Your task to perform on an android device: Clear the shopping cart on costco. Image 0: 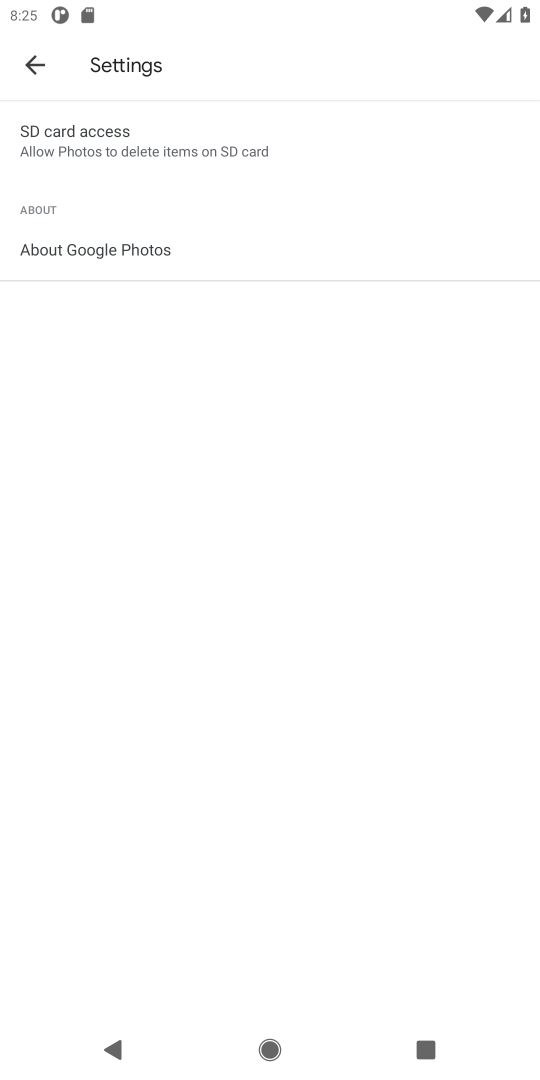
Step 0: press home button
Your task to perform on an android device: Clear the shopping cart on costco. Image 1: 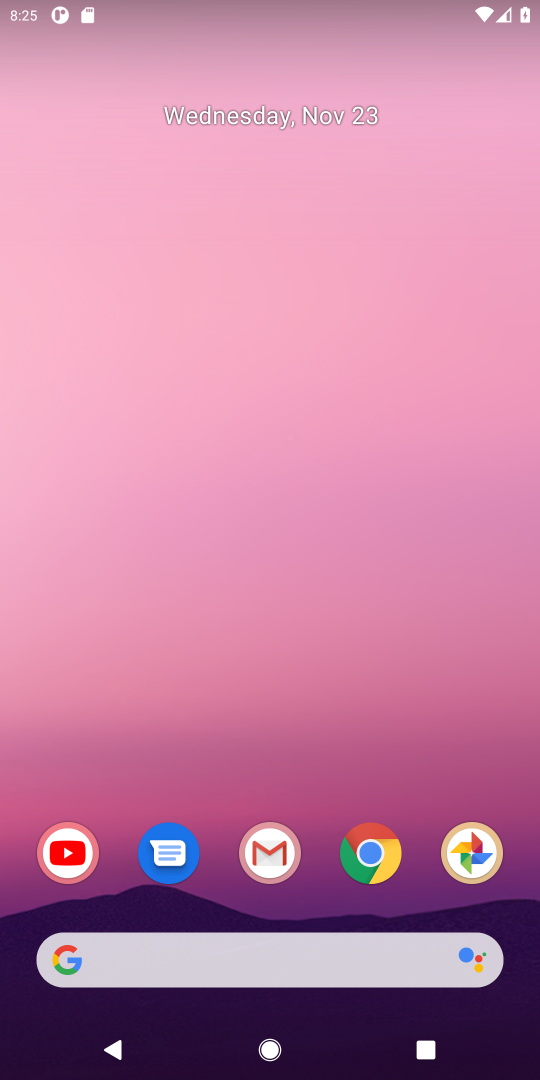
Step 1: click (370, 855)
Your task to perform on an android device: Clear the shopping cart on costco. Image 2: 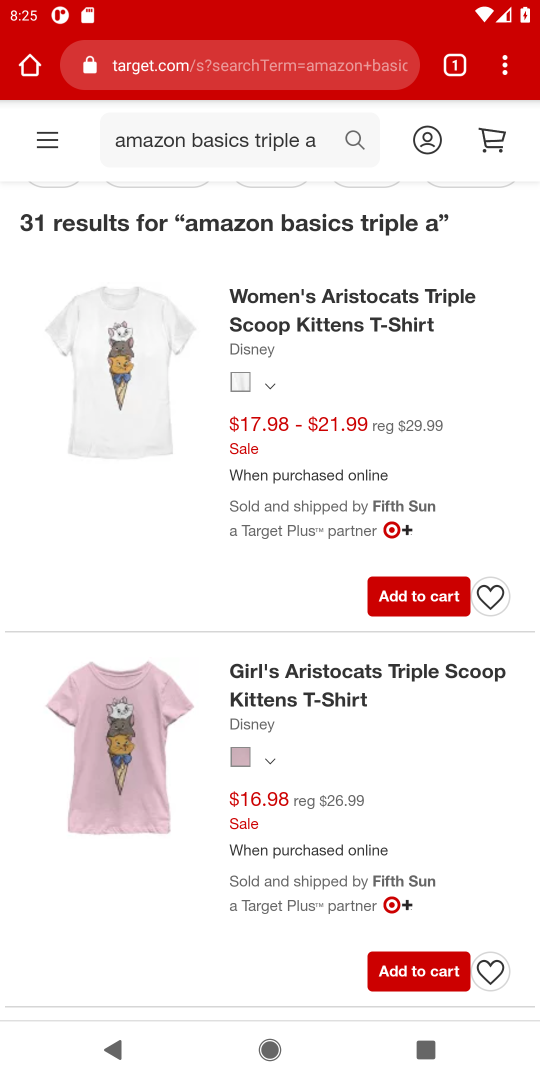
Step 2: click (202, 74)
Your task to perform on an android device: Clear the shopping cart on costco. Image 3: 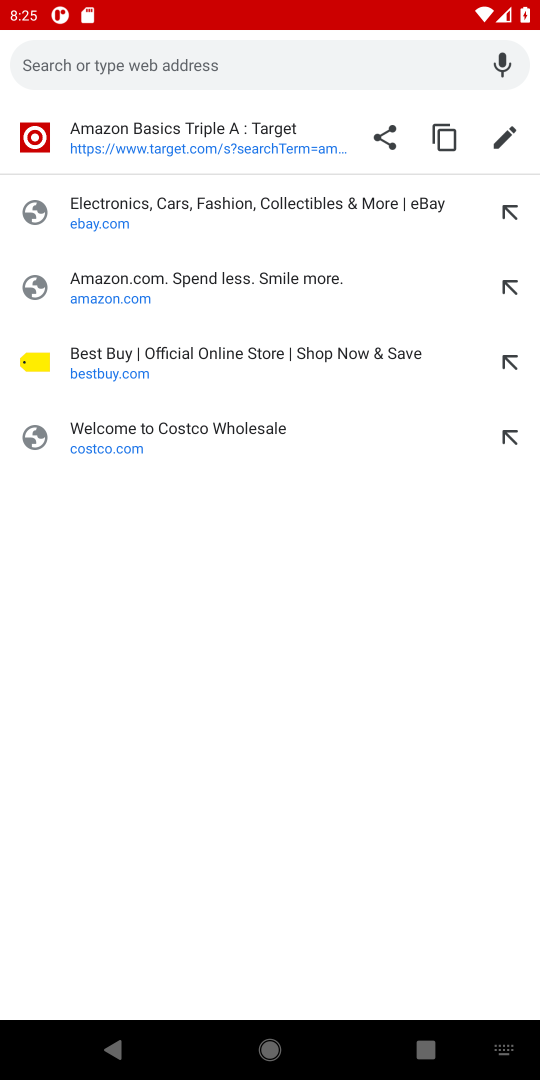
Step 3: click (94, 446)
Your task to perform on an android device: Clear the shopping cart on costco. Image 4: 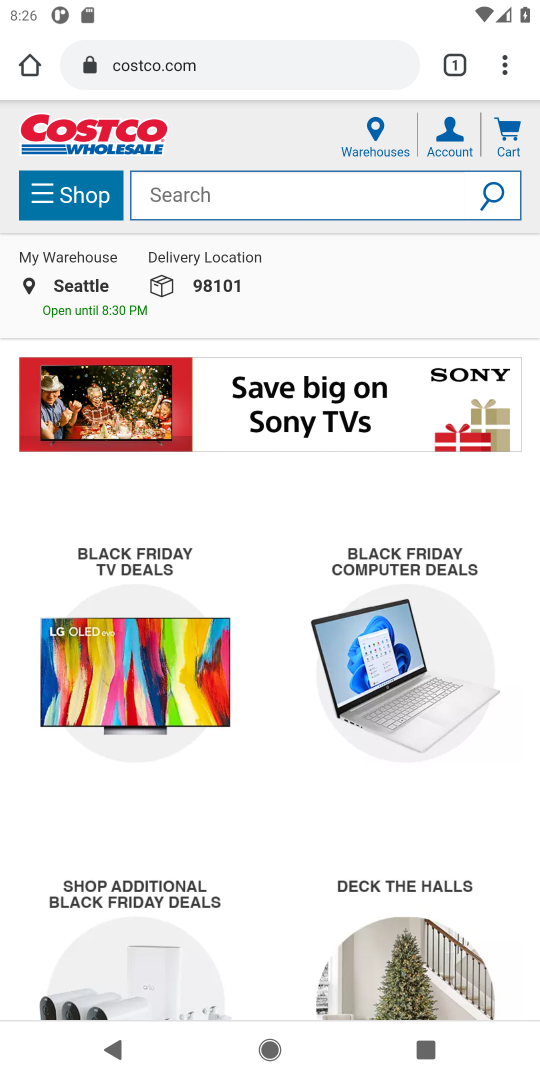
Step 4: click (512, 144)
Your task to perform on an android device: Clear the shopping cart on costco. Image 5: 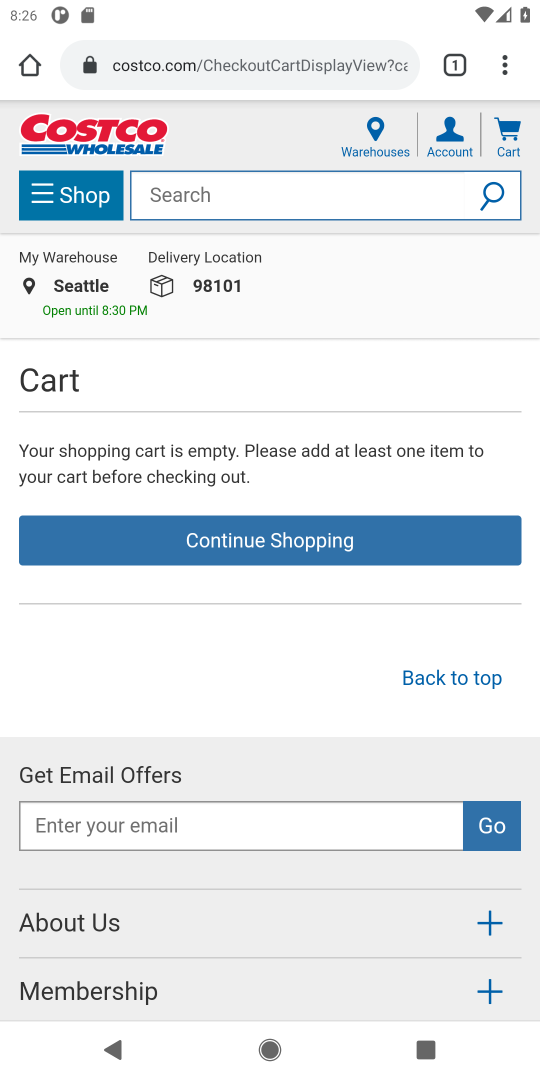
Step 5: task complete